Your task to perform on an android device: Is it going to rain today? Image 0: 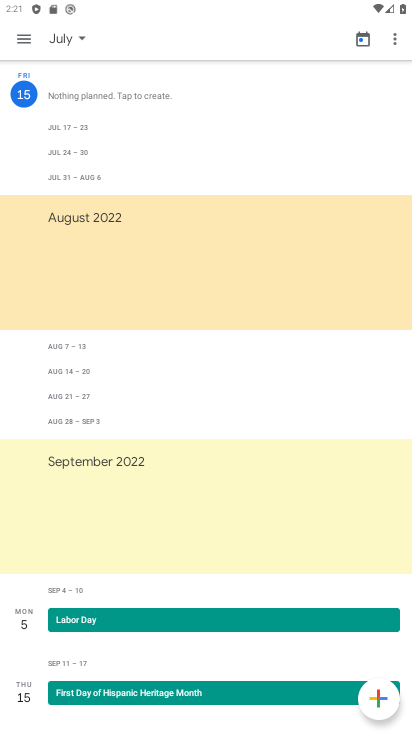
Step 0: press back button
Your task to perform on an android device: Is it going to rain today? Image 1: 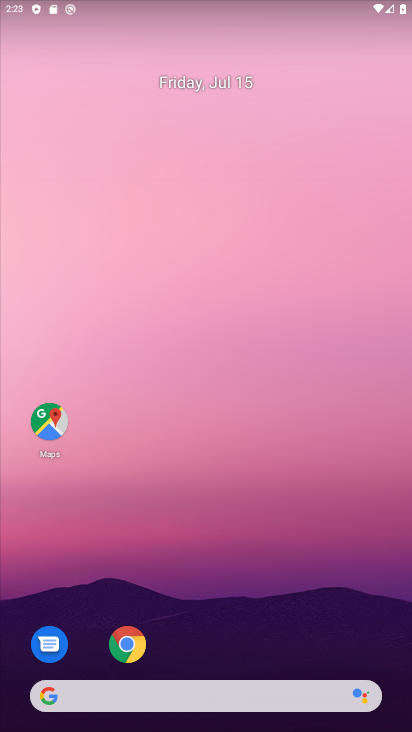
Step 1: drag from (270, 509) to (291, 61)
Your task to perform on an android device: Is it going to rain today? Image 2: 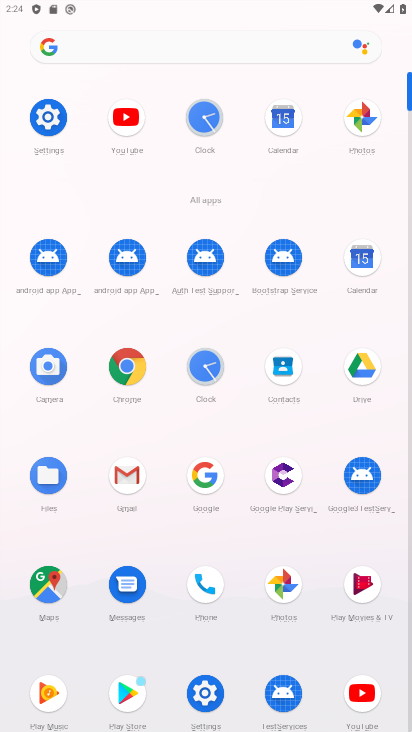
Step 2: click (133, 42)
Your task to perform on an android device: Is it going to rain today? Image 3: 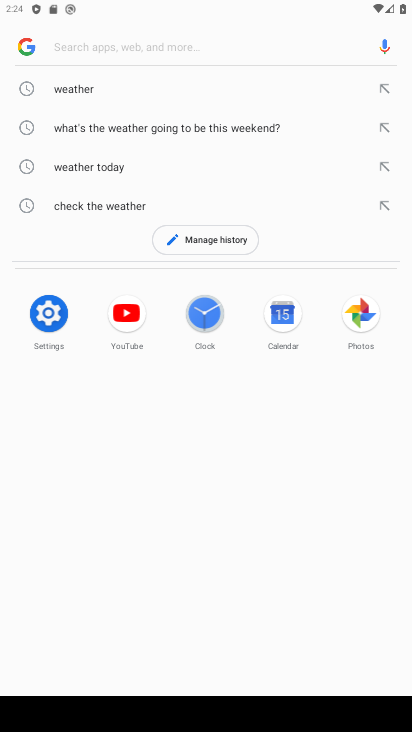
Step 3: click (111, 85)
Your task to perform on an android device: Is it going to rain today? Image 4: 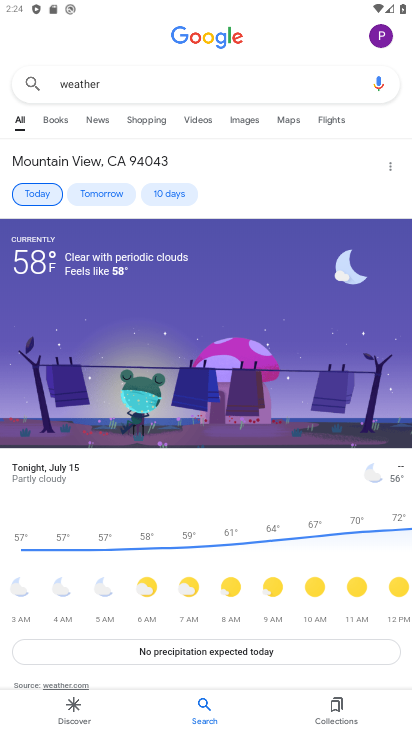
Step 4: task complete